Your task to perform on an android device: Search for vegetarian restaurants on Maps Image 0: 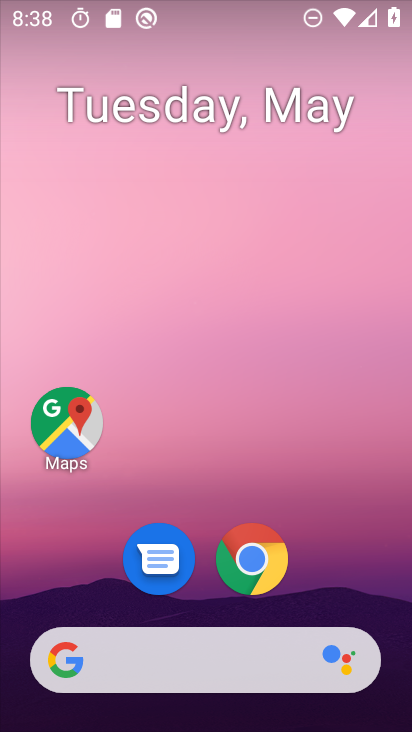
Step 0: drag from (391, 608) to (291, 103)
Your task to perform on an android device: Search for vegetarian restaurants on Maps Image 1: 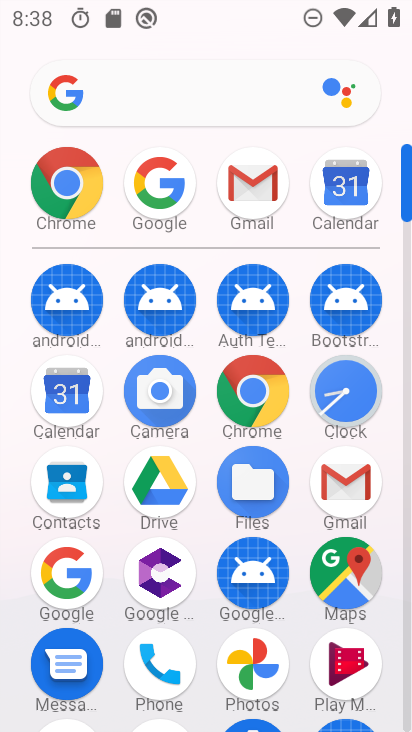
Step 1: click (365, 576)
Your task to perform on an android device: Search for vegetarian restaurants on Maps Image 2: 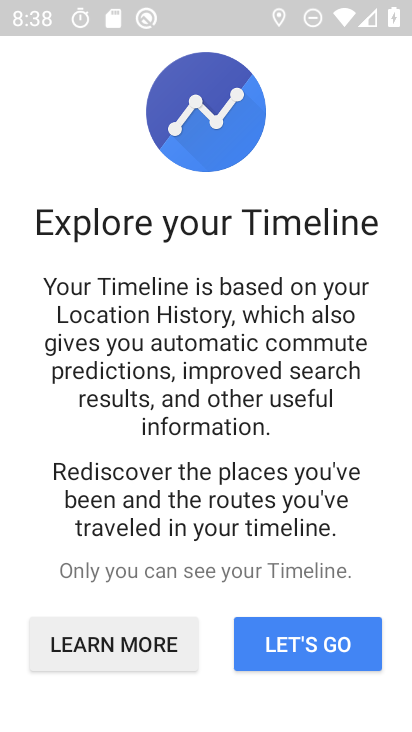
Step 2: press back button
Your task to perform on an android device: Search for vegetarian restaurants on Maps Image 3: 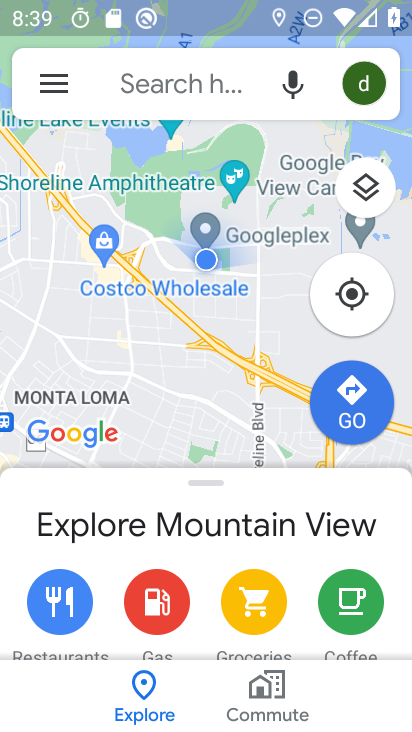
Step 3: click (178, 96)
Your task to perform on an android device: Search for vegetarian restaurants on Maps Image 4: 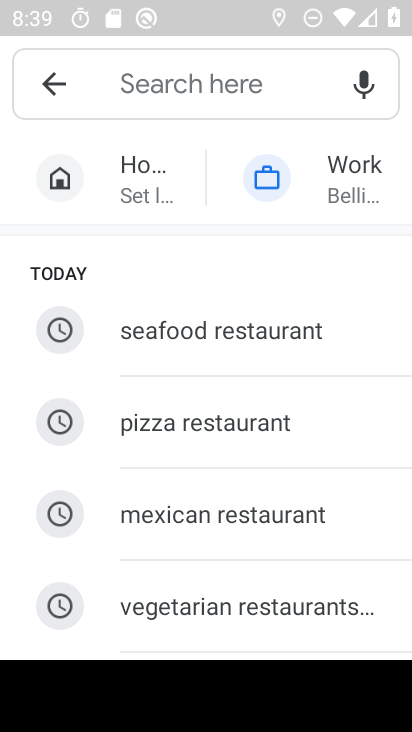
Step 4: click (247, 606)
Your task to perform on an android device: Search for vegetarian restaurants on Maps Image 5: 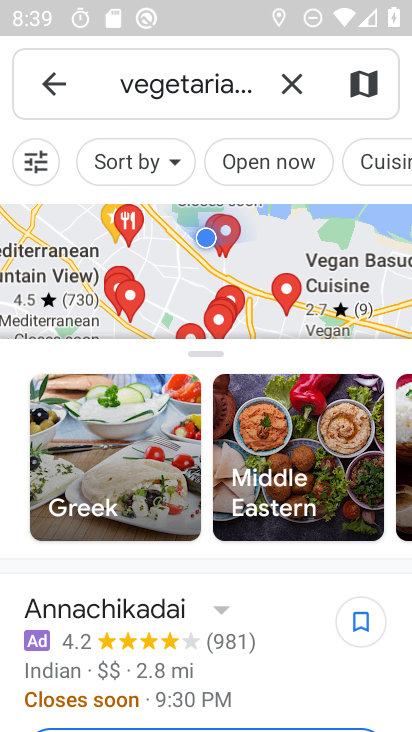
Step 5: task complete